Your task to perform on an android device: change notifications settings Image 0: 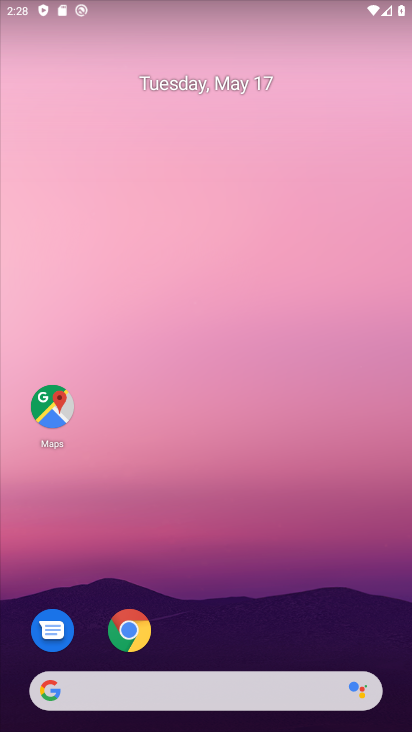
Step 0: drag from (264, 571) to (260, 165)
Your task to perform on an android device: change notifications settings Image 1: 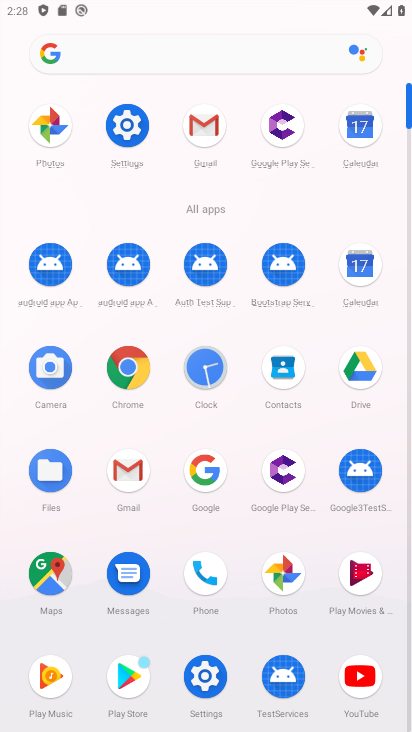
Step 1: click (124, 126)
Your task to perform on an android device: change notifications settings Image 2: 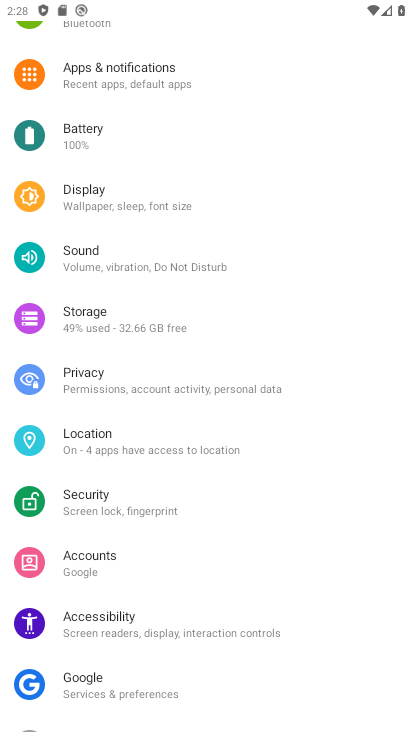
Step 2: click (155, 79)
Your task to perform on an android device: change notifications settings Image 3: 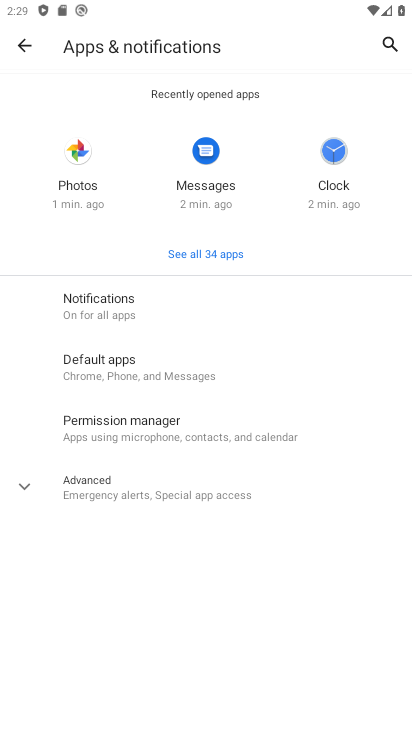
Step 3: click (143, 304)
Your task to perform on an android device: change notifications settings Image 4: 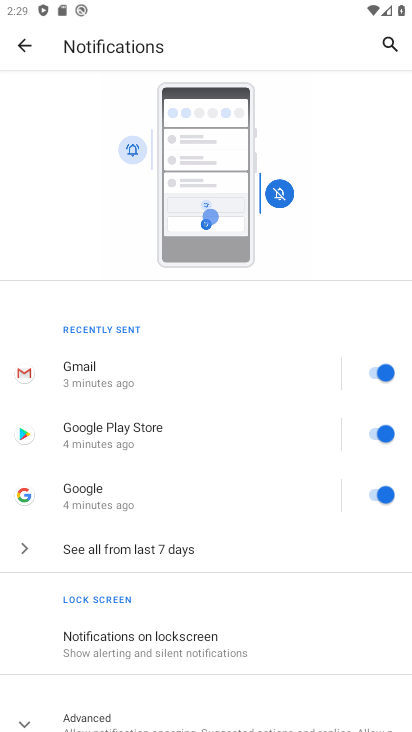
Step 4: click (374, 435)
Your task to perform on an android device: change notifications settings Image 5: 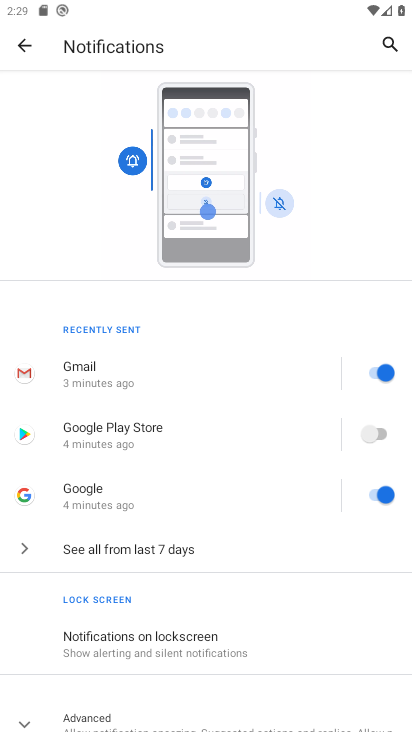
Step 5: task complete